Your task to perform on an android device: Open display settings Image 0: 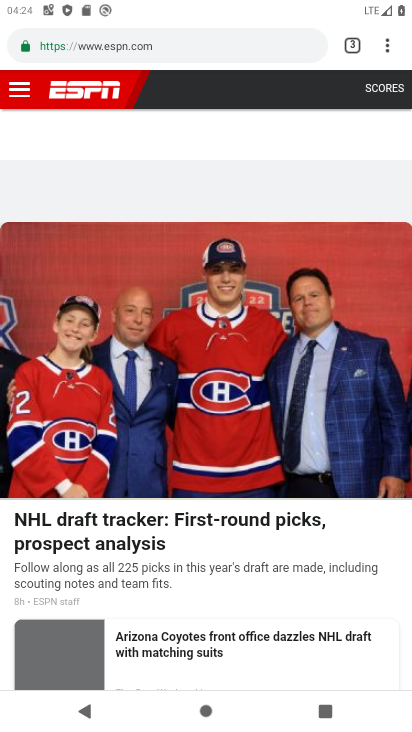
Step 0: press home button
Your task to perform on an android device: Open display settings Image 1: 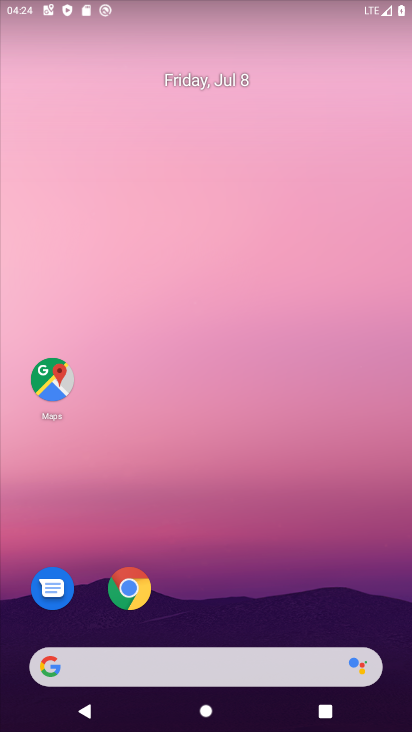
Step 1: drag from (200, 610) to (194, 14)
Your task to perform on an android device: Open display settings Image 2: 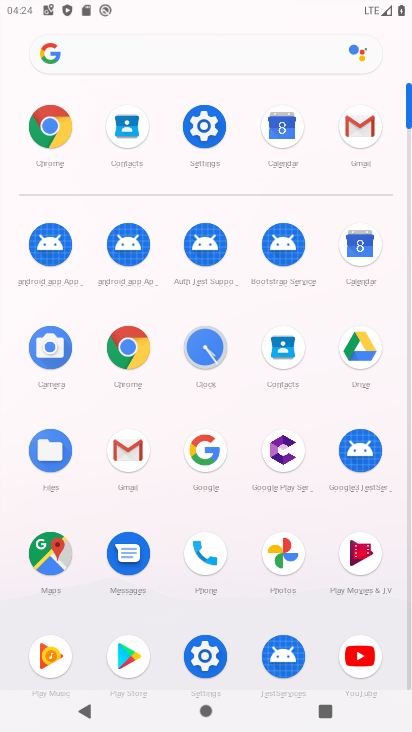
Step 2: click (205, 118)
Your task to perform on an android device: Open display settings Image 3: 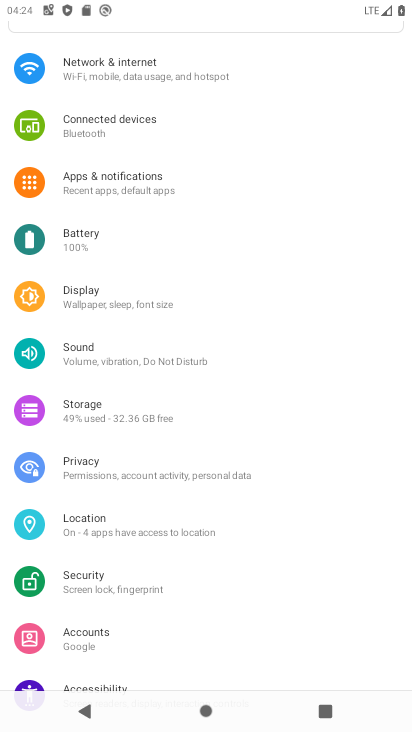
Step 3: click (87, 294)
Your task to perform on an android device: Open display settings Image 4: 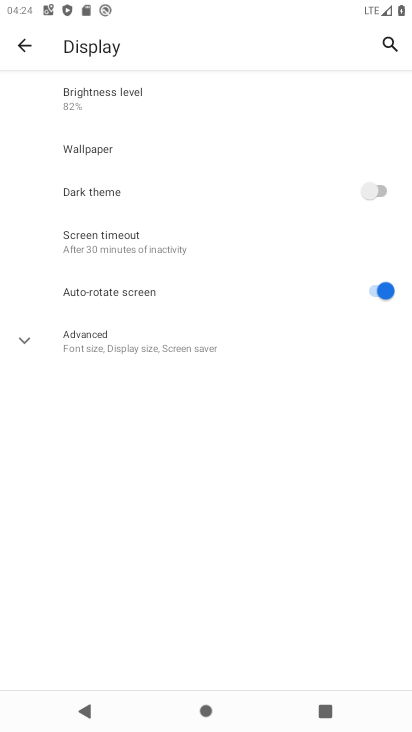
Step 4: task complete